Your task to perform on an android device: turn on javascript in the chrome app Image 0: 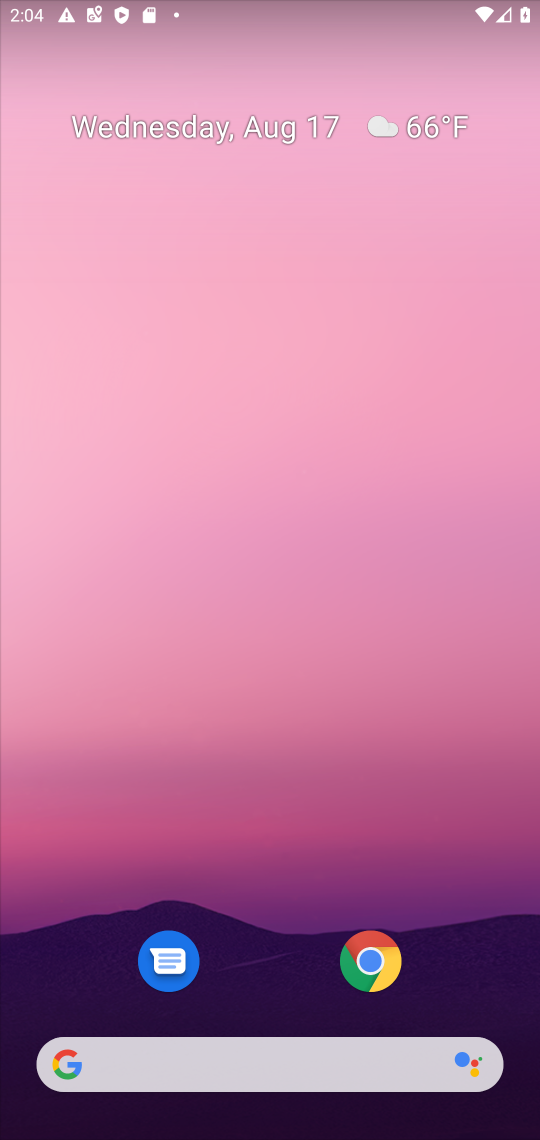
Step 0: drag from (278, 1008) to (368, 98)
Your task to perform on an android device: turn on javascript in the chrome app Image 1: 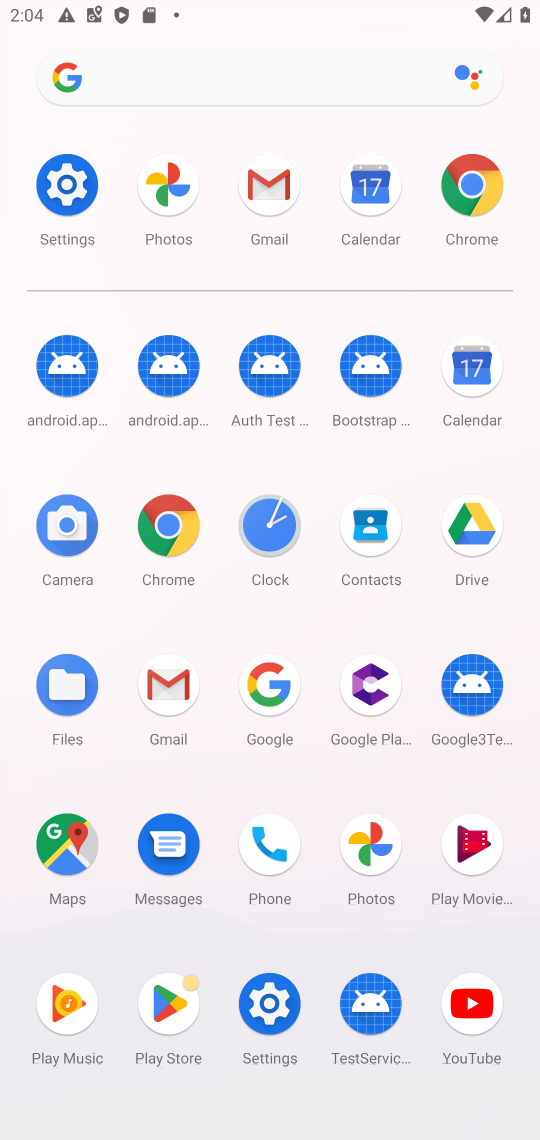
Step 1: click (490, 206)
Your task to perform on an android device: turn on javascript in the chrome app Image 2: 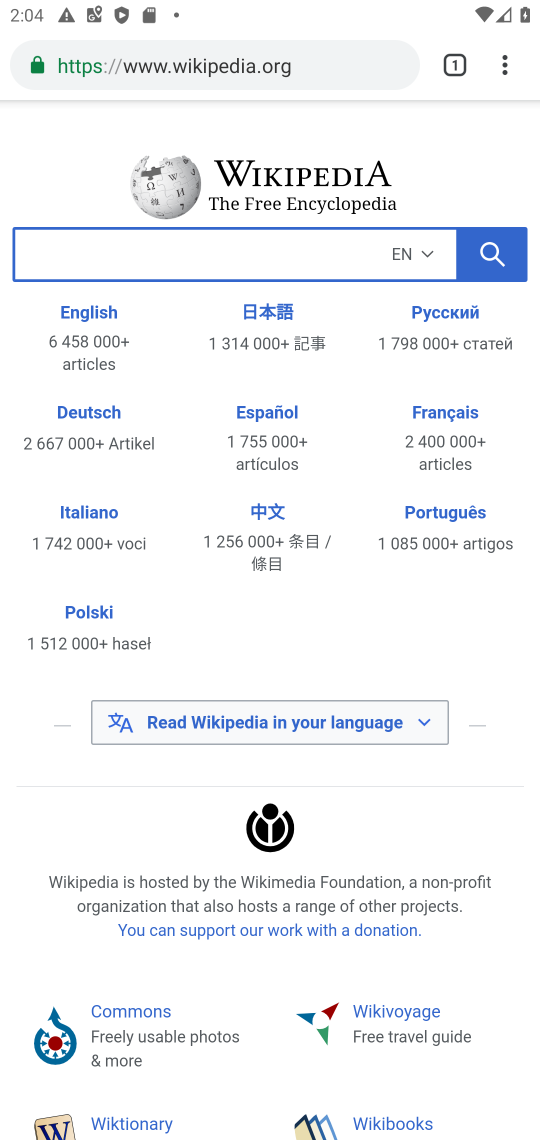
Step 2: click (505, 70)
Your task to perform on an android device: turn on javascript in the chrome app Image 3: 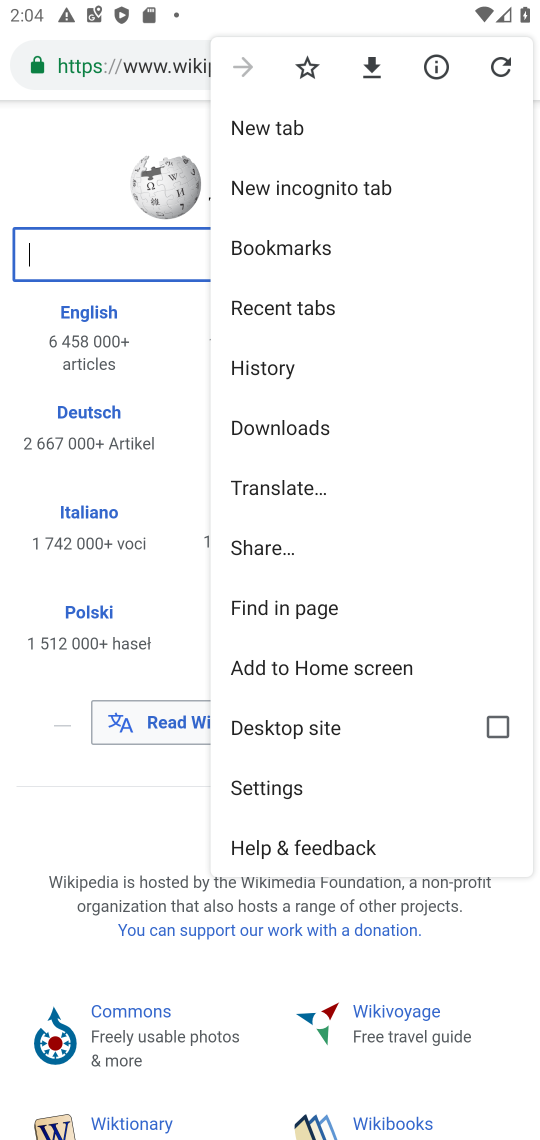
Step 3: click (287, 792)
Your task to perform on an android device: turn on javascript in the chrome app Image 4: 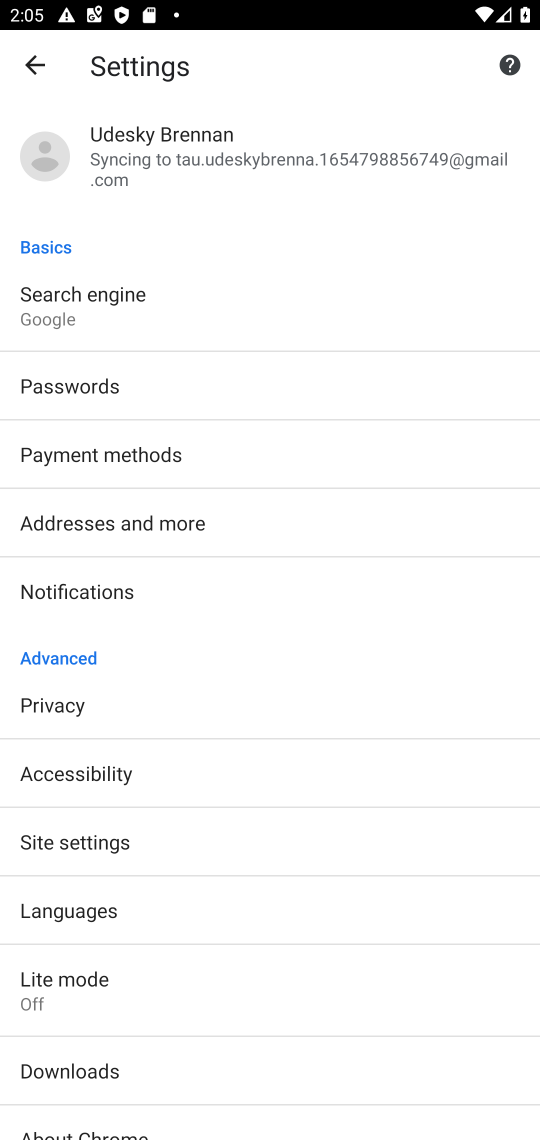
Step 4: click (127, 829)
Your task to perform on an android device: turn on javascript in the chrome app Image 5: 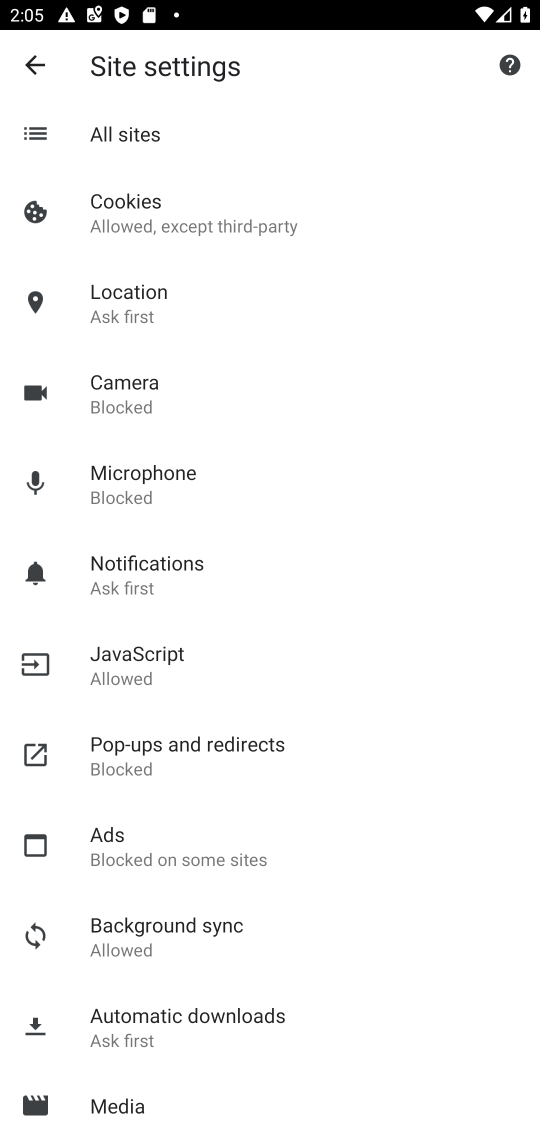
Step 5: click (202, 660)
Your task to perform on an android device: turn on javascript in the chrome app Image 6: 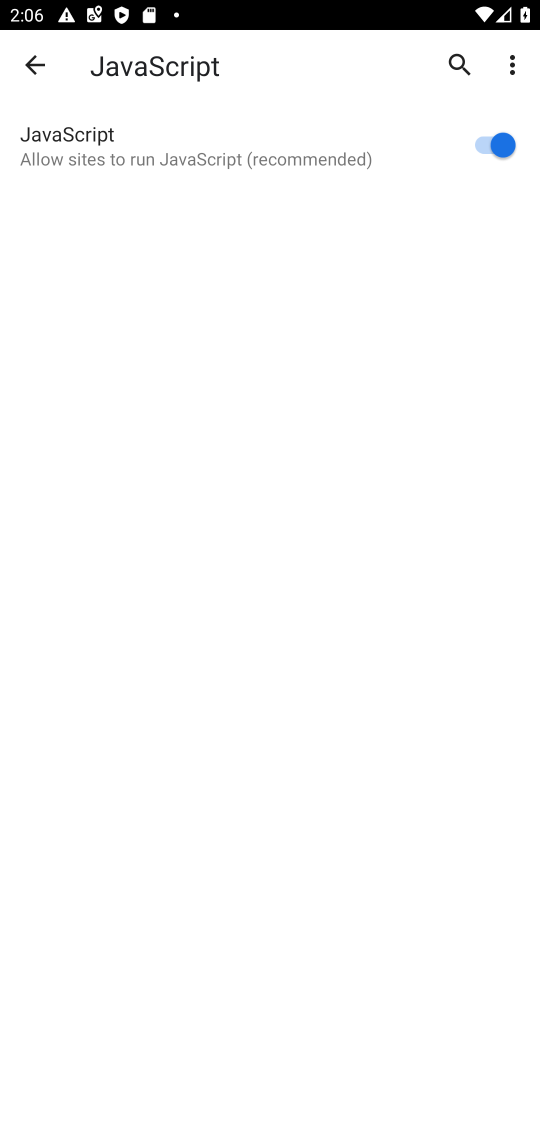
Step 6: task complete